Your task to perform on an android device: Do I have any events this weekend? Image 0: 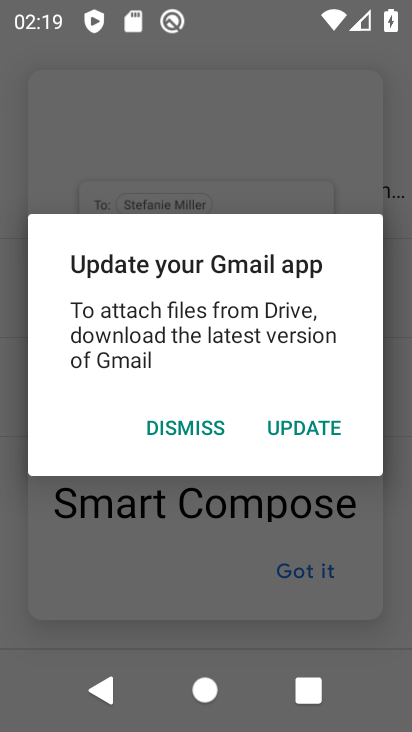
Step 0: press home button
Your task to perform on an android device: Do I have any events this weekend? Image 1: 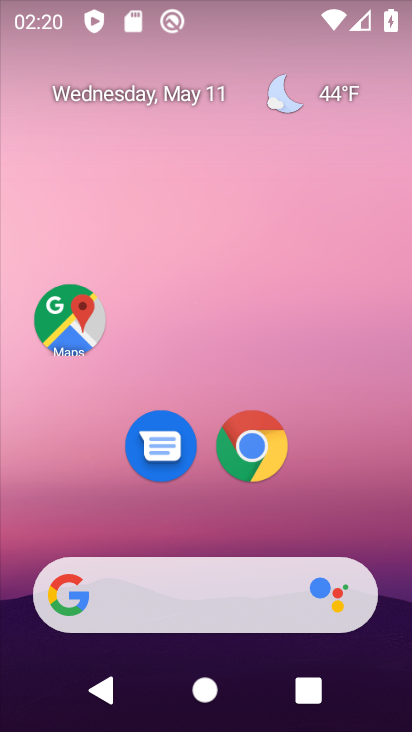
Step 1: drag from (314, 495) to (183, 134)
Your task to perform on an android device: Do I have any events this weekend? Image 2: 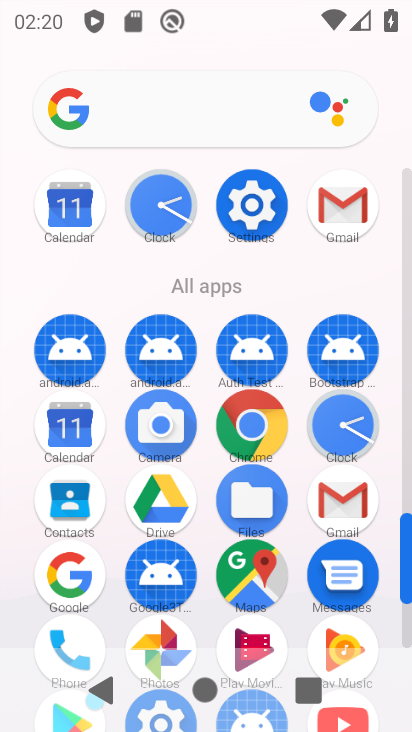
Step 2: click (79, 434)
Your task to perform on an android device: Do I have any events this weekend? Image 3: 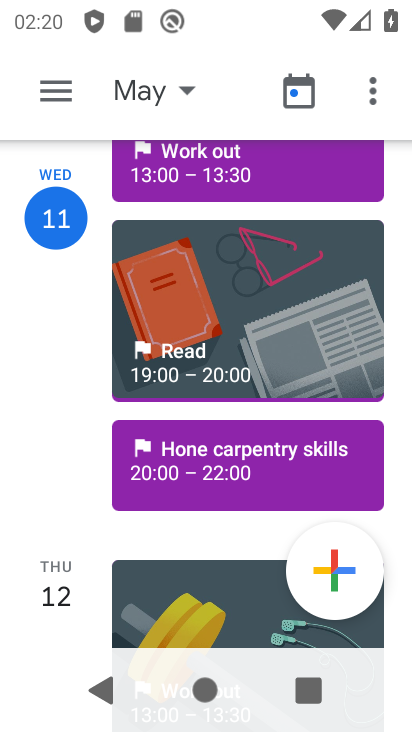
Step 3: drag from (203, 547) to (188, 217)
Your task to perform on an android device: Do I have any events this weekend? Image 4: 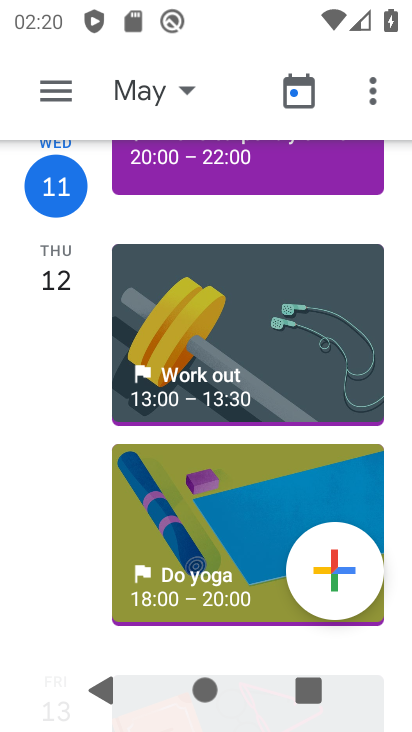
Step 4: click (56, 93)
Your task to perform on an android device: Do I have any events this weekend? Image 5: 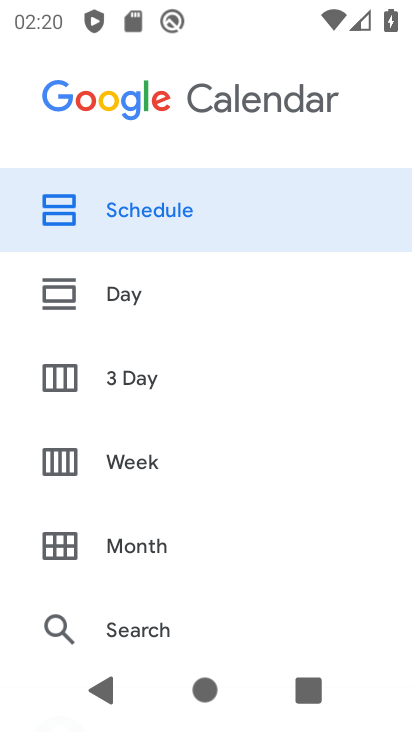
Step 5: click (125, 465)
Your task to perform on an android device: Do I have any events this weekend? Image 6: 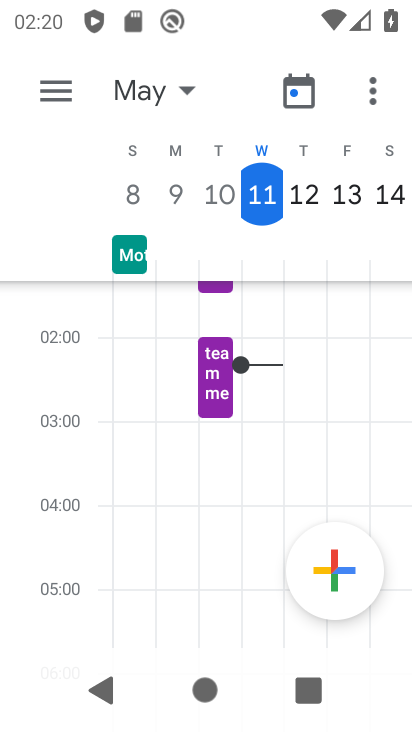
Step 6: click (377, 195)
Your task to perform on an android device: Do I have any events this weekend? Image 7: 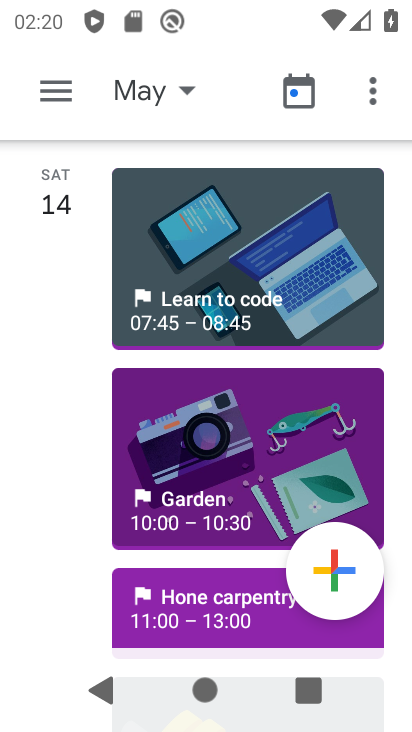
Step 7: drag from (190, 517) to (233, 183)
Your task to perform on an android device: Do I have any events this weekend? Image 8: 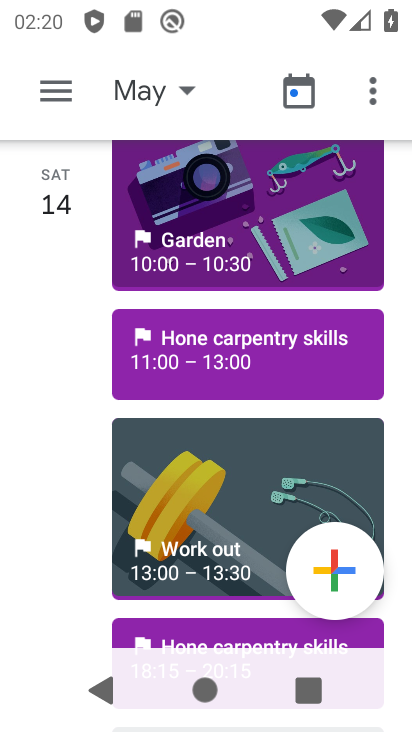
Step 8: drag from (243, 479) to (243, 157)
Your task to perform on an android device: Do I have any events this weekend? Image 9: 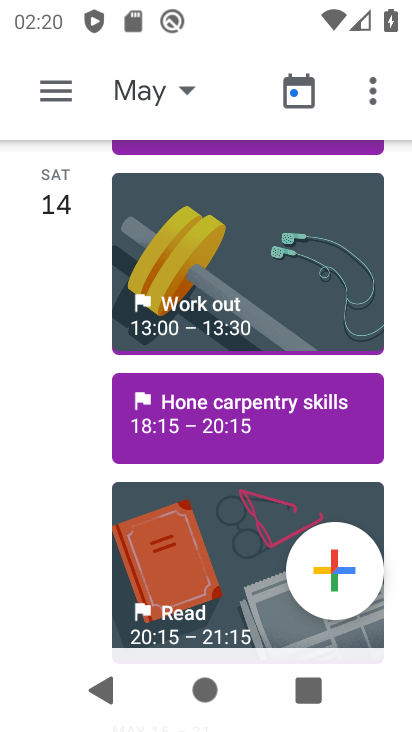
Step 9: drag from (219, 555) to (177, 220)
Your task to perform on an android device: Do I have any events this weekend? Image 10: 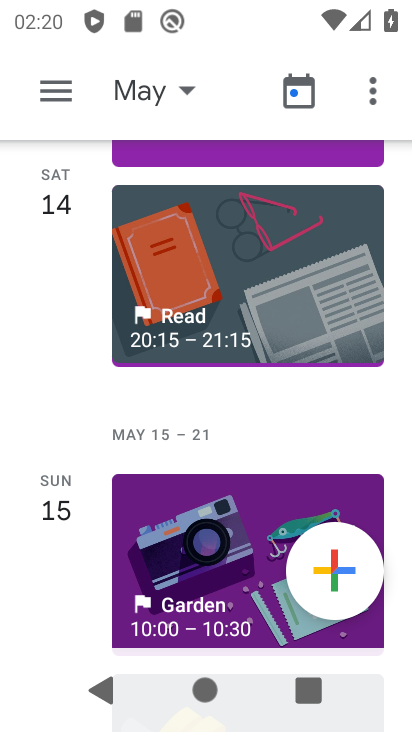
Step 10: click (193, 641)
Your task to perform on an android device: Do I have any events this weekend? Image 11: 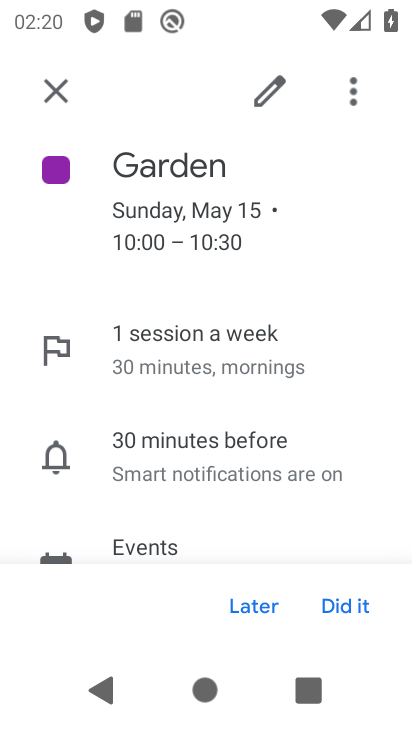
Step 11: drag from (184, 599) to (138, 405)
Your task to perform on an android device: Do I have any events this weekend? Image 12: 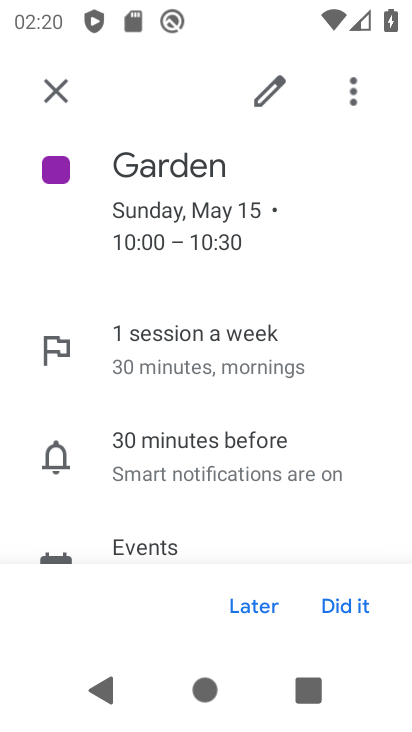
Step 12: click (52, 97)
Your task to perform on an android device: Do I have any events this weekend? Image 13: 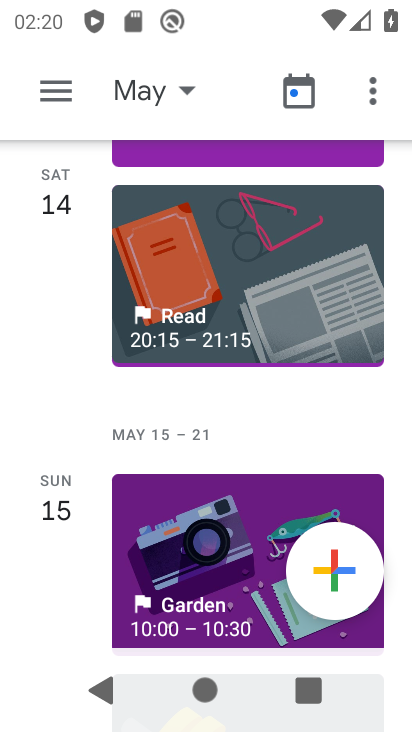
Step 13: task complete